Your task to perform on an android device: See recent photos Image 0: 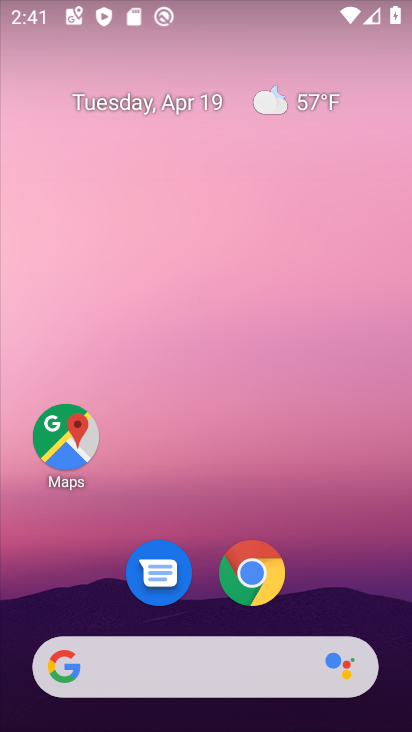
Step 0: drag from (372, 607) to (380, 72)
Your task to perform on an android device: See recent photos Image 1: 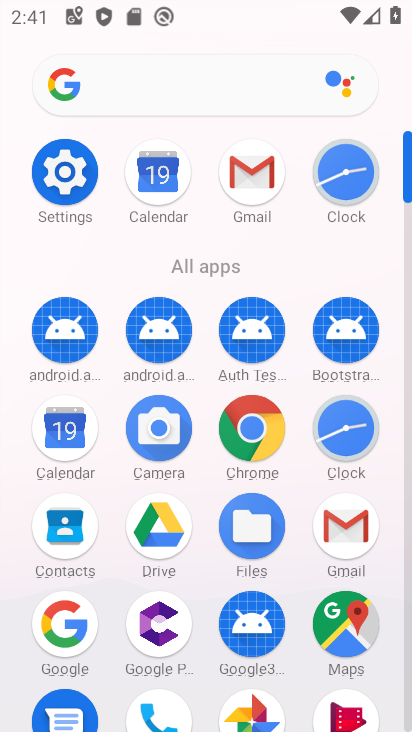
Step 1: click (238, 703)
Your task to perform on an android device: See recent photos Image 2: 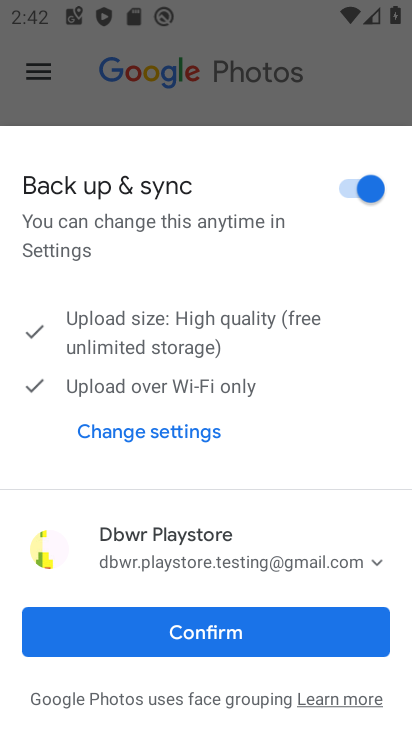
Step 2: click (190, 625)
Your task to perform on an android device: See recent photos Image 3: 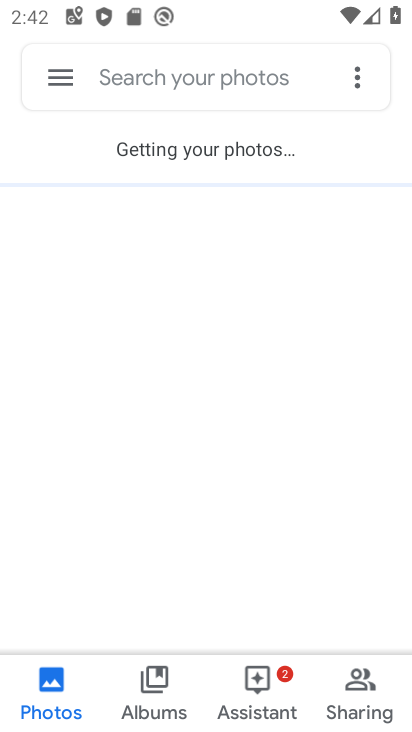
Step 3: click (72, 74)
Your task to perform on an android device: See recent photos Image 4: 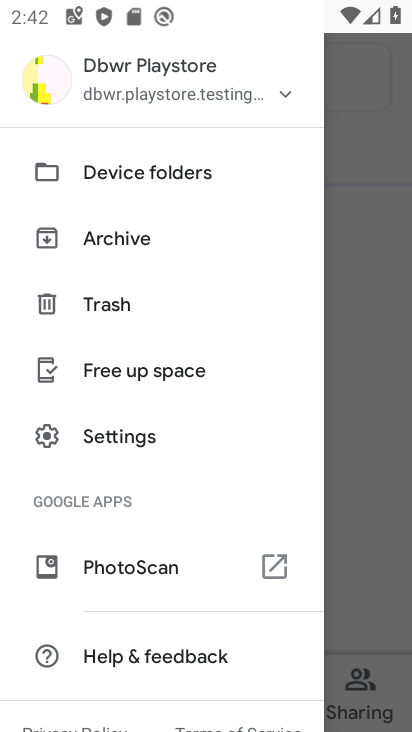
Step 4: drag from (185, 358) to (185, 226)
Your task to perform on an android device: See recent photos Image 5: 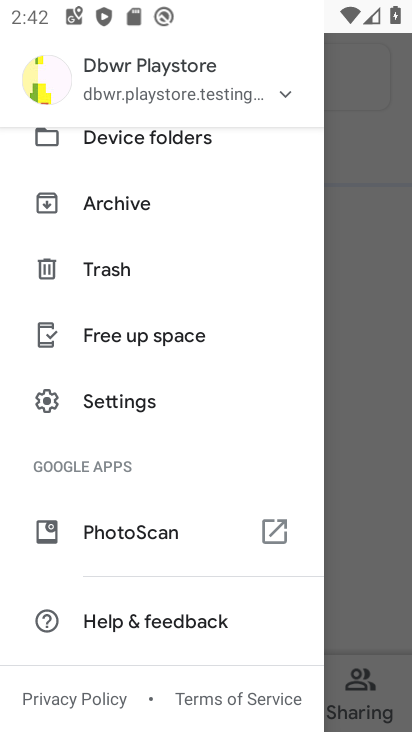
Step 5: click (345, 548)
Your task to perform on an android device: See recent photos Image 6: 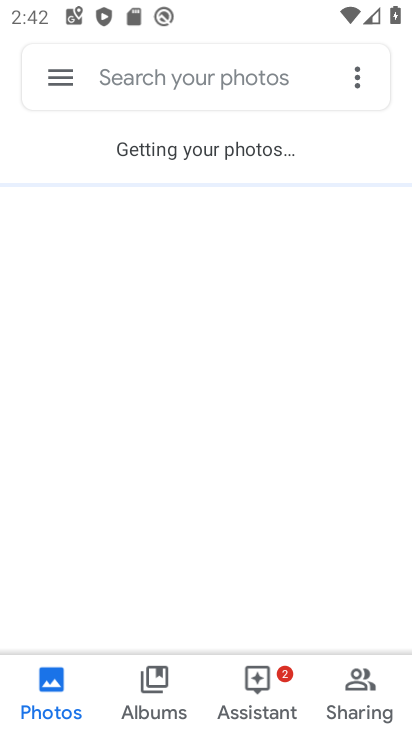
Step 6: task complete